Your task to perform on an android device: How much does a 3 bedroom apartment rent for in Seattle? Image 0: 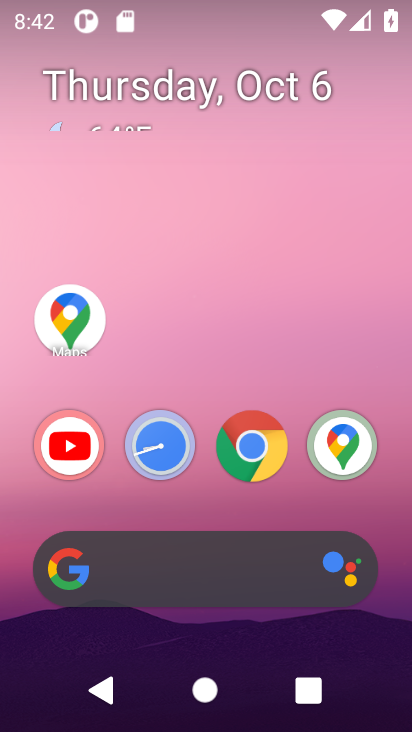
Step 0: click (209, 567)
Your task to perform on an android device: How much does a 3 bedroom apartment rent for in Seattle? Image 1: 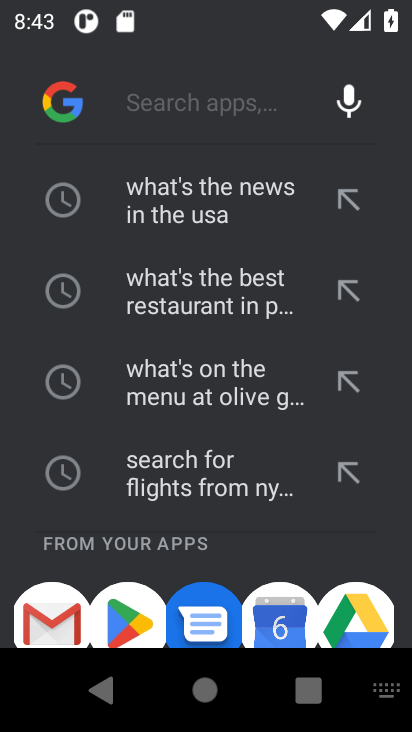
Step 1: type "How much does a 3 bedroom apartment rent for in Seattle?"
Your task to perform on an android device: How much does a 3 bedroom apartment rent for in Seattle? Image 2: 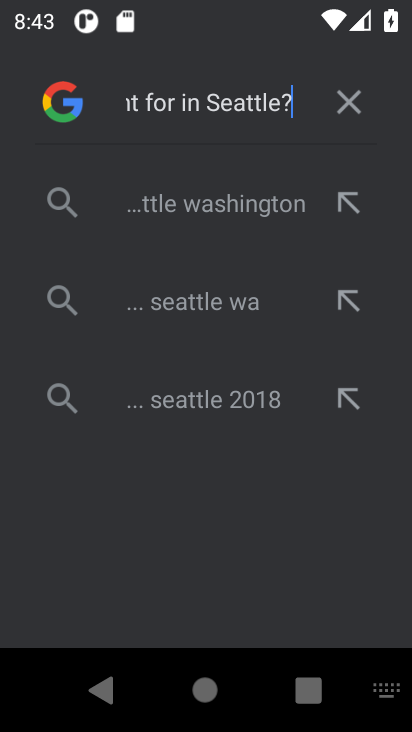
Step 2: click (196, 213)
Your task to perform on an android device: How much does a 3 bedroom apartment rent for in Seattle? Image 3: 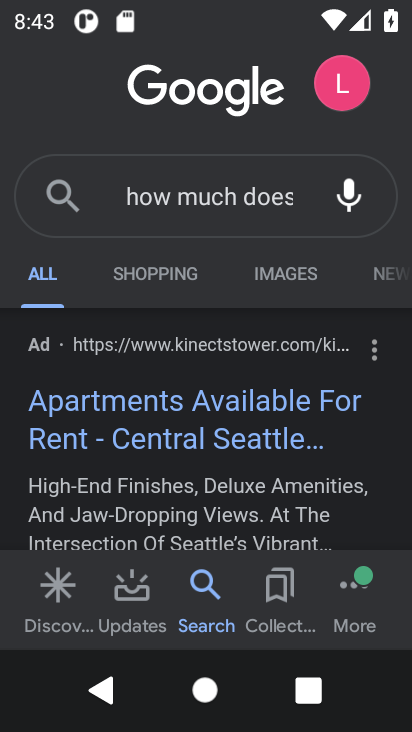
Step 3: task complete